Your task to perform on an android device: Go to location settings Image 0: 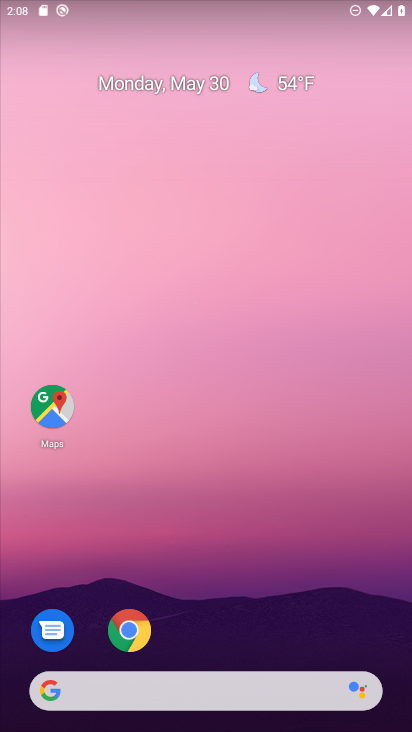
Step 0: drag from (276, 692) to (268, 161)
Your task to perform on an android device: Go to location settings Image 1: 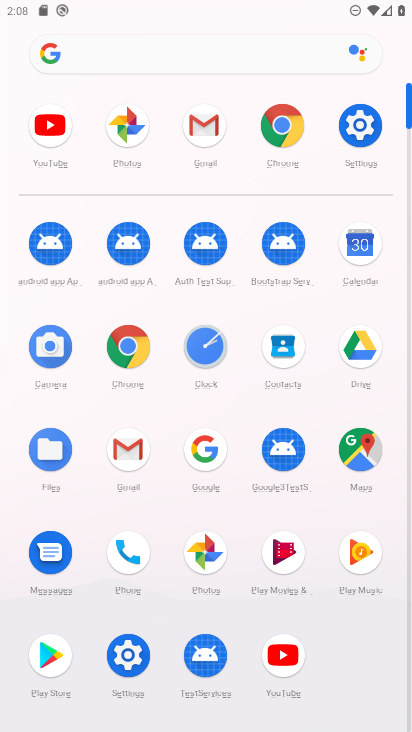
Step 1: click (349, 145)
Your task to perform on an android device: Go to location settings Image 2: 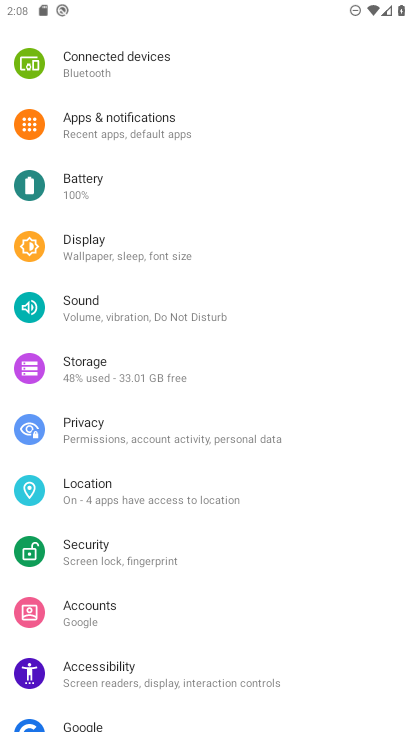
Step 2: click (143, 488)
Your task to perform on an android device: Go to location settings Image 3: 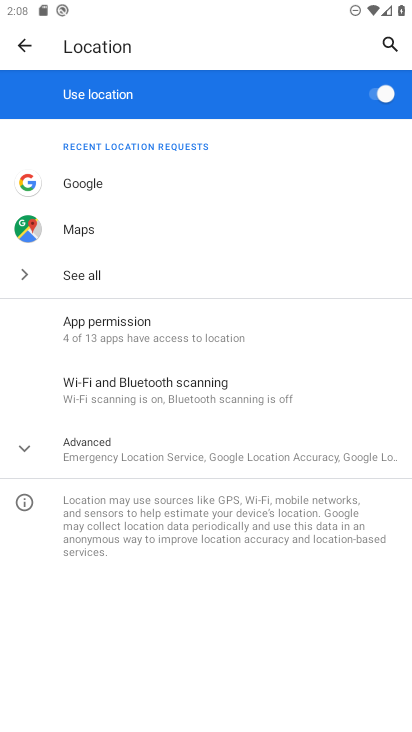
Step 3: task complete